Your task to perform on an android device: change the clock display to show seconds Image 0: 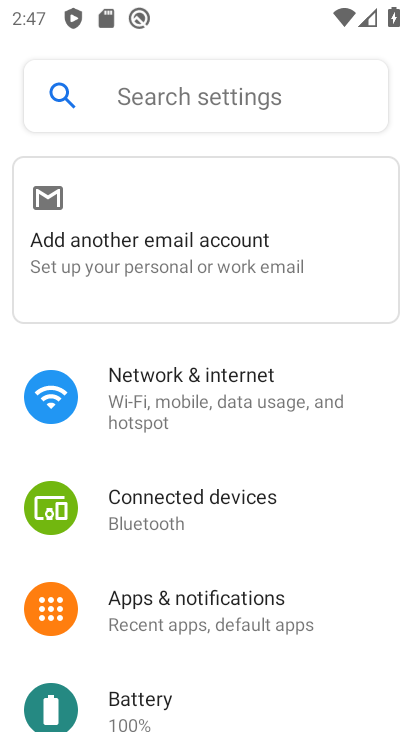
Step 0: press home button
Your task to perform on an android device: change the clock display to show seconds Image 1: 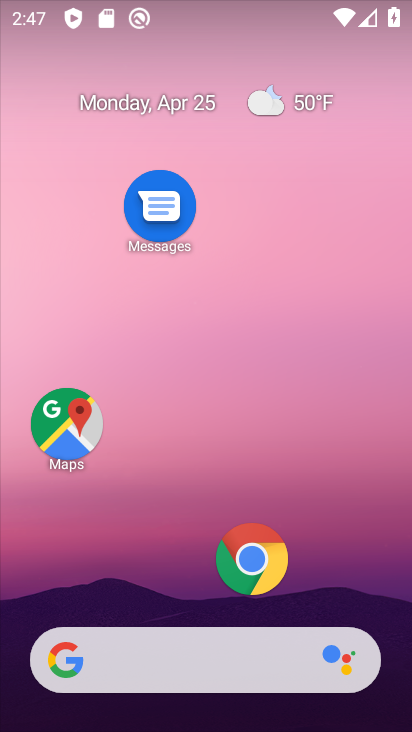
Step 1: drag from (172, 538) to (312, 19)
Your task to perform on an android device: change the clock display to show seconds Image 2: 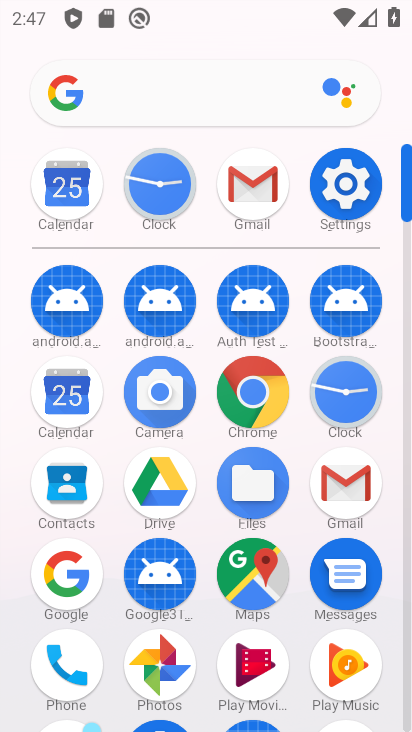
Step 2: click (345, 399)
Your task to perform on an android device: change the clock display to show seconds Image 3: 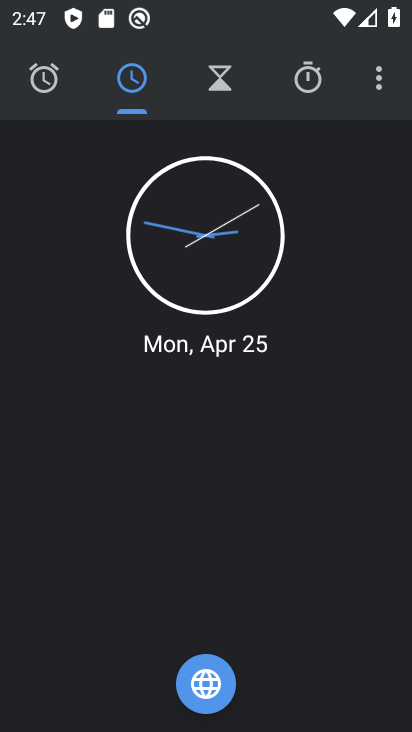
Step 3: click (387, 80)
Your task to perform on an android device: change the clock display to show seconds Image 4: 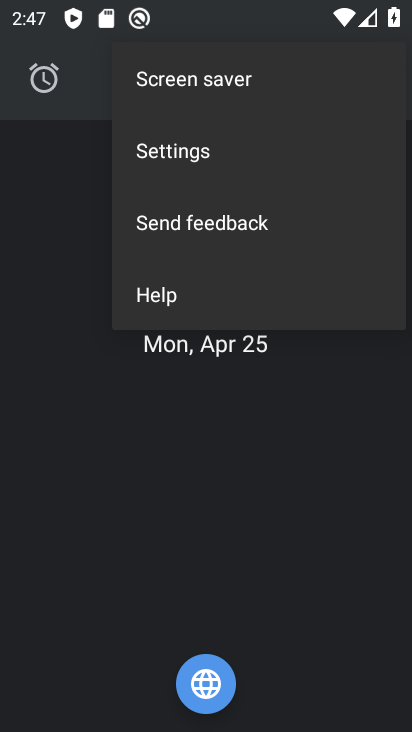
Step 4: click (203, 156)
Your task to perform on an android device: change the clock display to show seconds Image 5: 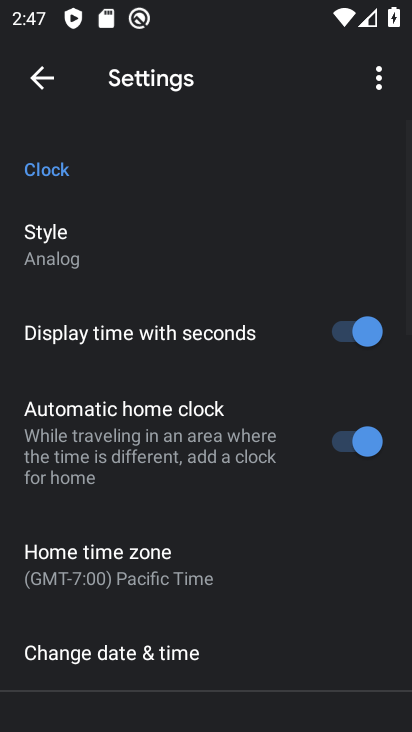
Step 5: click (127, 256)
Your task to perform on an android device: change the clock display to show seconds Image 6: 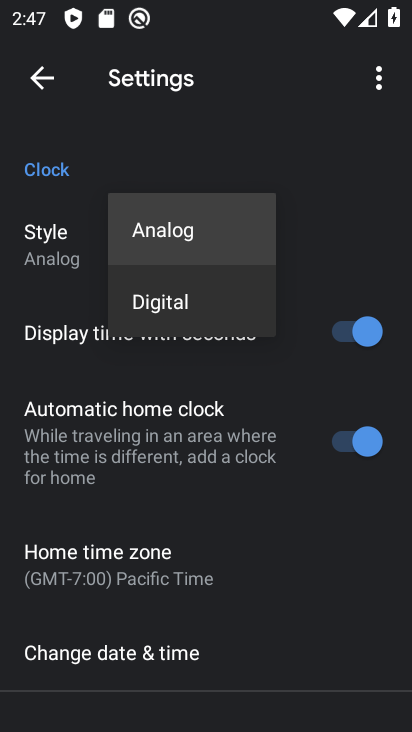
Step 6: click (214, 302)
Your task to perform on an android device: change the clock display to show seconds Image 7: 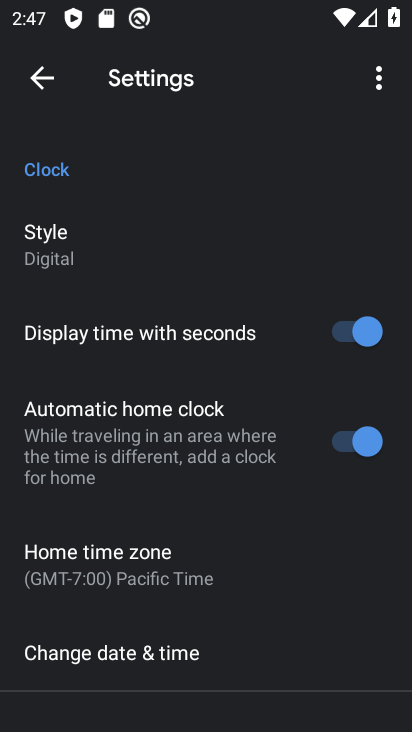
Step 7: task complete